Your task to perform on an android device: toggle show notifications on the lock screen Image 0: 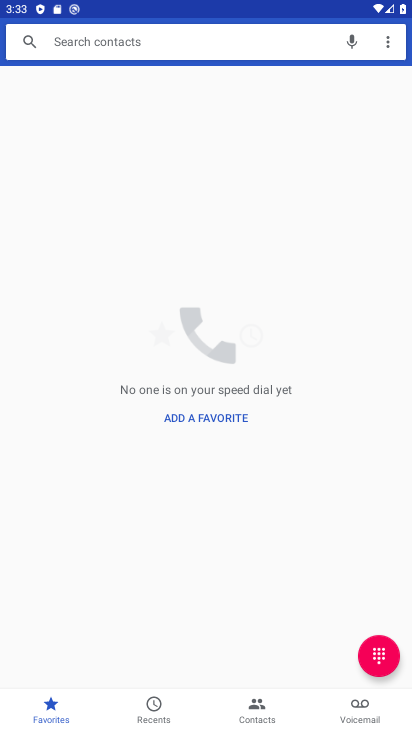
Step 0: press back button
Your task to perform on an android device: toggle show notifications on the lock screen Image 1: 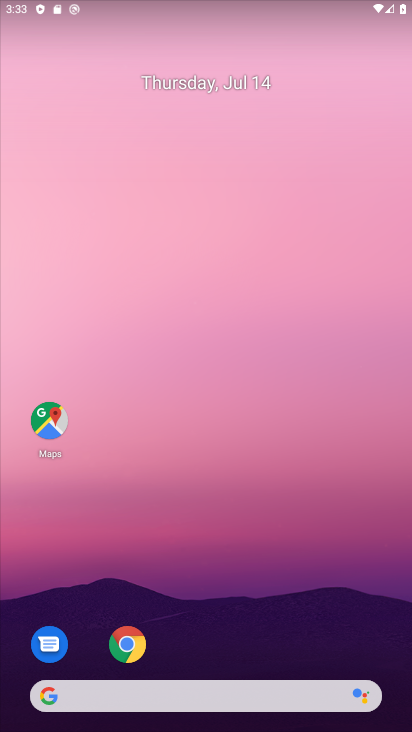
Step 1: drag from (243, 609) to (266, 57)
Your task to perform on an android device: toggle show notifications on the lock screen Image 2: 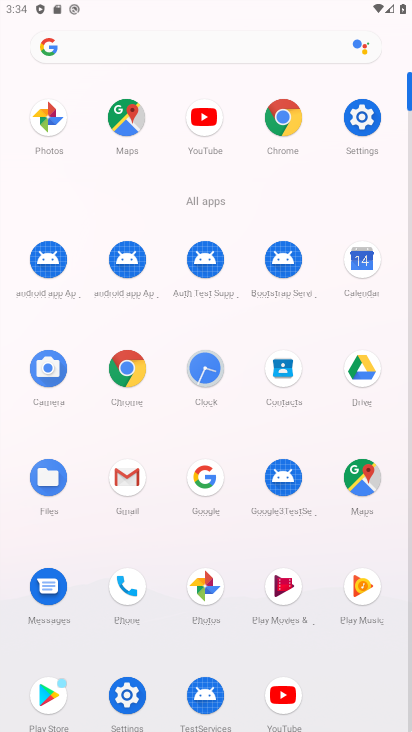
Step 2: click (351, 115)
Your task to perform on an android device: toggle show notifications on the lock screen Image 3: 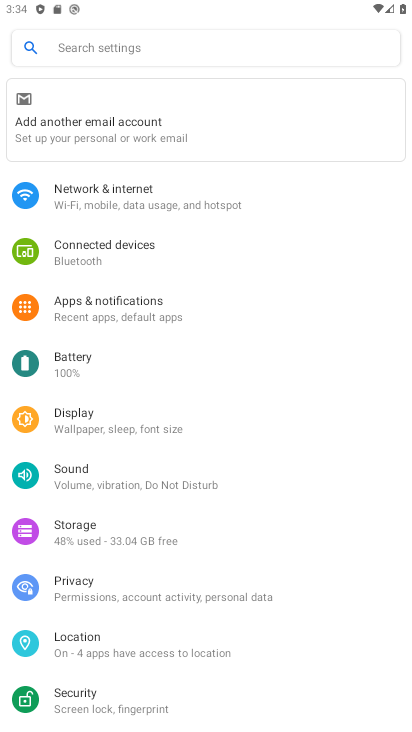
Step 3: click (144, 305)
Your task to perform on an android device: toggle show notifications on the lock screen Image 4: 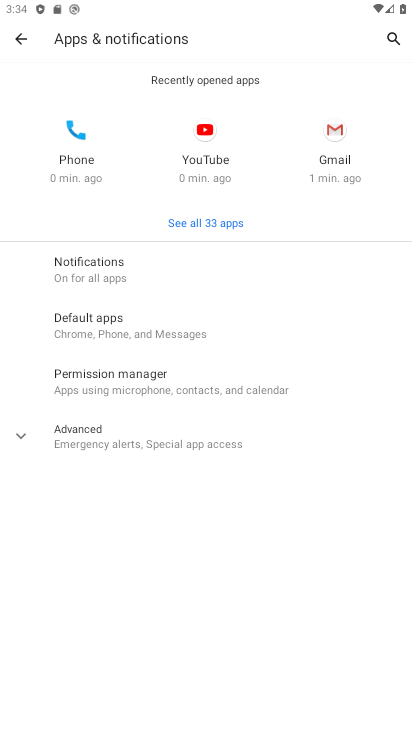
Step 4: click (138, 264)
Your task to perform on an android device: toggle show notifications on the lock screen Image 5: 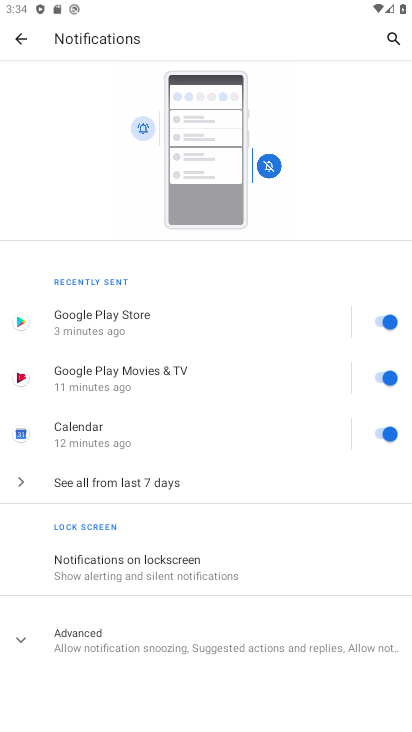
Step 5: click (122, 568)
Your task to perform on an android device: toggle show notifications on the lock screen Image 6: 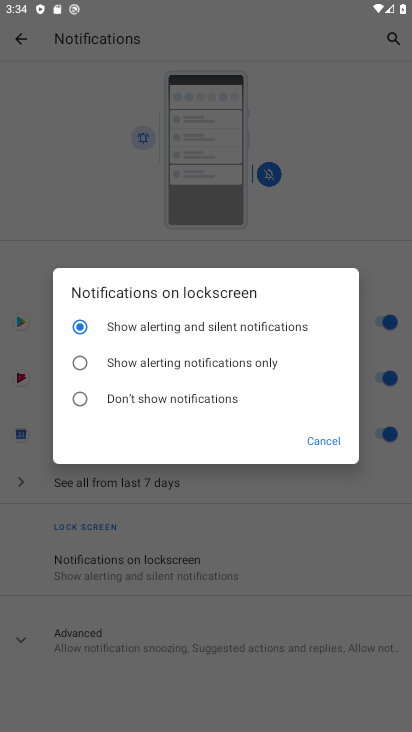
Step 6: click (90, 329)
Your task to perform on an android device: toggle show notifications on the lock screen Image 7: 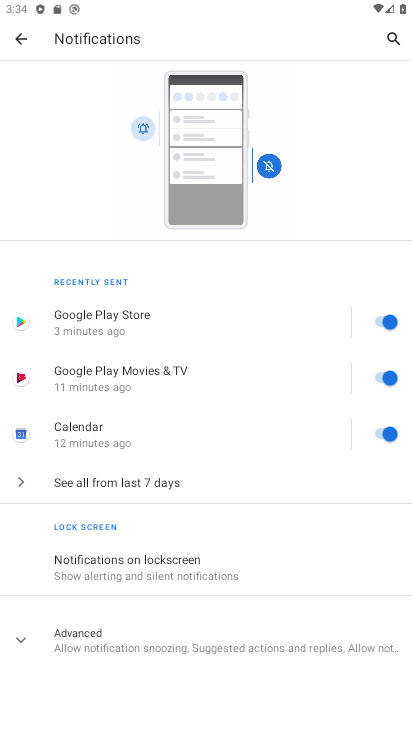
Step 7: task complete